Your task to perform on an android device: Go to network settings Image 0: 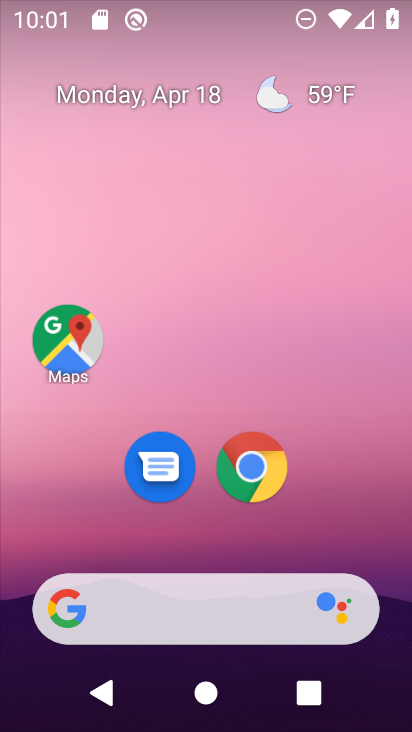
Step 0: drag from (212, 551) to (274, 14)
Your task to perform on an android device: Go to network settings Image 1: 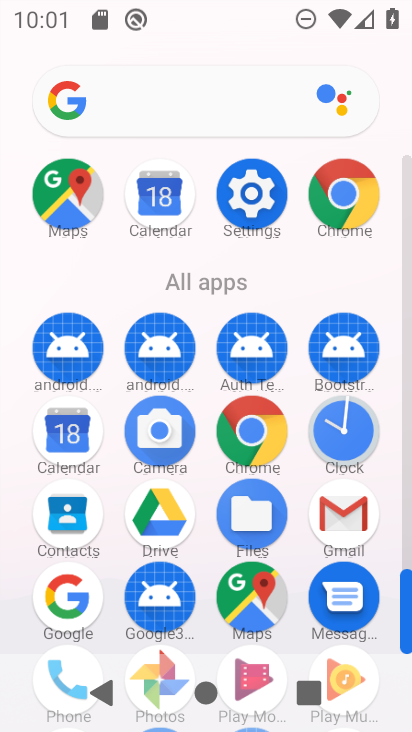
Step 1: click (257, 180)
Your task to perform on an android device: Go to network settings Image 2: 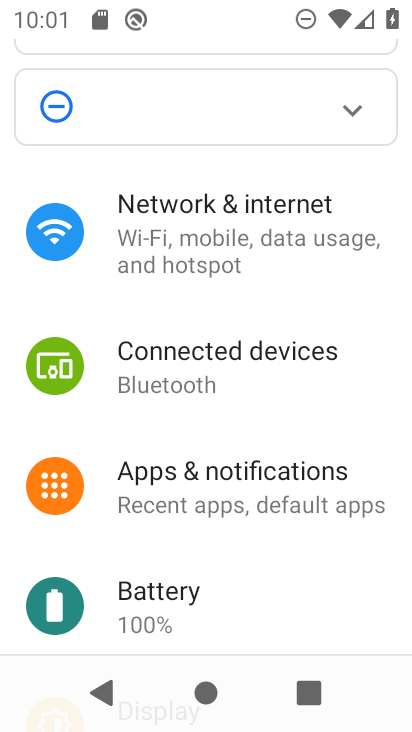
Step 2: click (223, 223)
Your task to perform on an android device: Go to network settings Image 3: 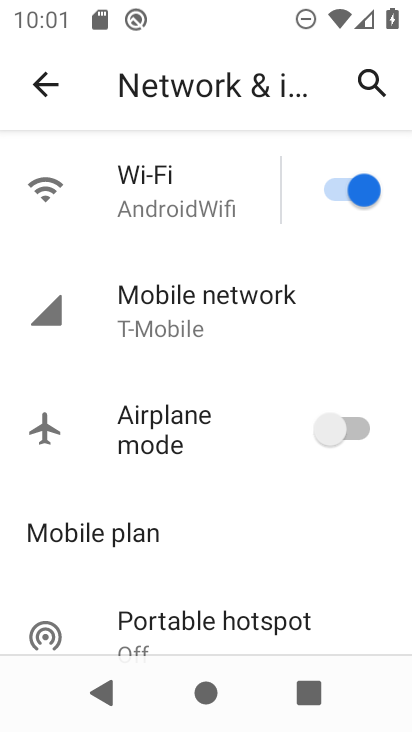
Step 3: click (189, 300)
Your task to perform on an android device: Go to network settings Image 4: 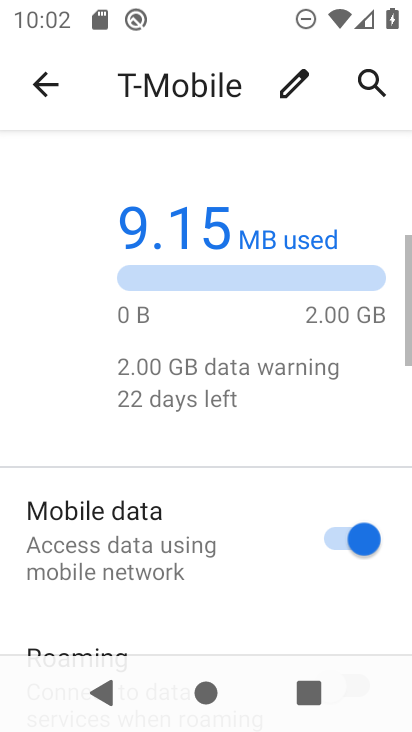
Step 4: task complete